Your task to perform on an android device: Go to accessibility settings Image 0: 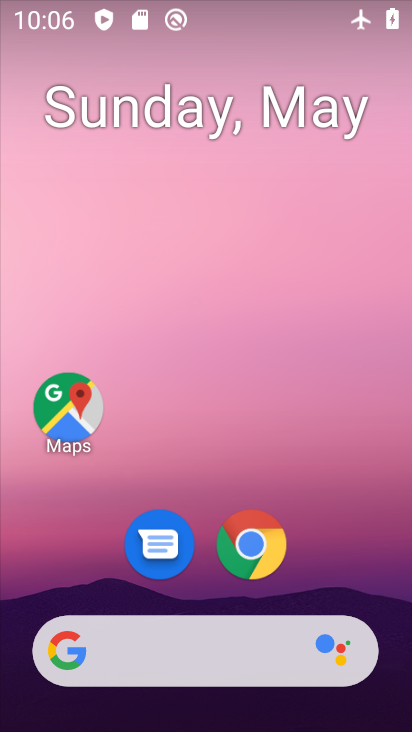
Step 0: drag from (316, 568) to (322, 293)
Your task to perform on an android device: Go to accessibility settings Image 1: 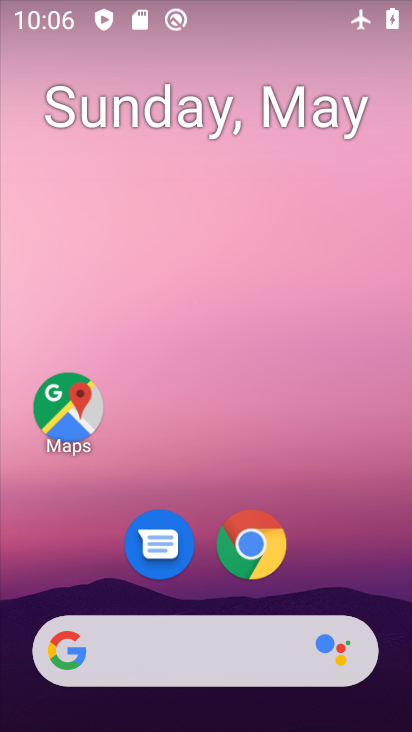
Step 1: drag from (324, 591) to (327, 207)
Your task to perform on an android device: Go to accessibility settings Image 2: 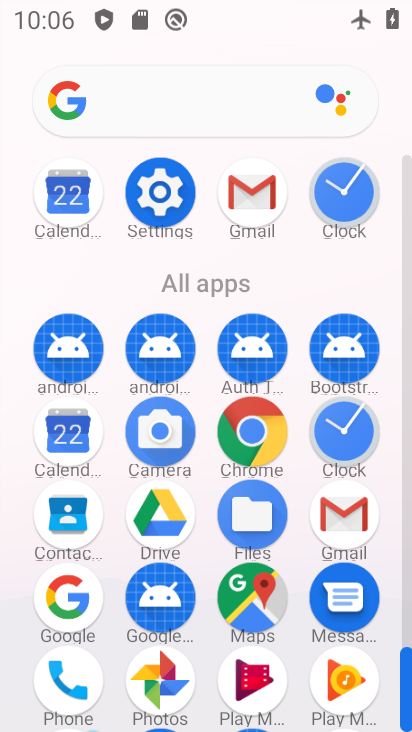
Step 2: click (163, 190)
Your task to perform on an android device: Go to accessibility settings Image 3: 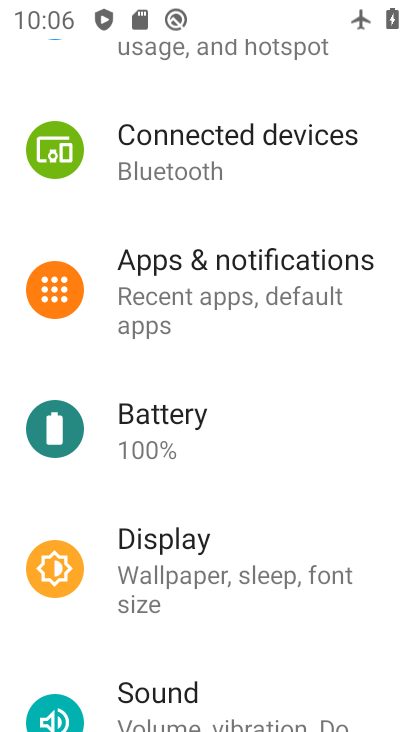
Step 3: drag from (246, 636) to (263, 148)
Your task to perform on an android device: Go to accessibility settings Image 4: 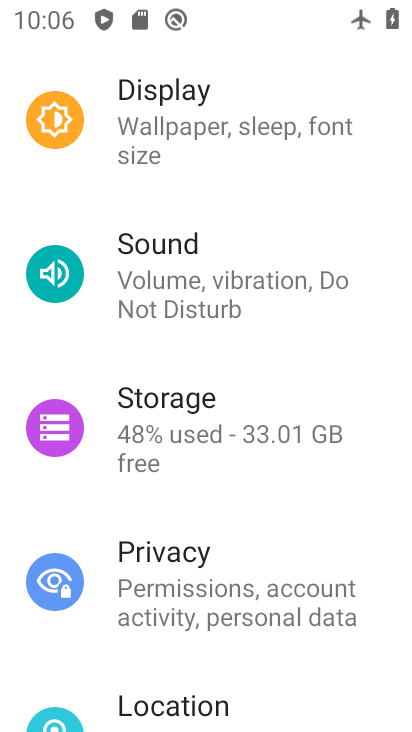
Step 4: drag from (226, 589) to (232, 141)
Your task to perform on an android device: Go to accessibility settings Image 5: 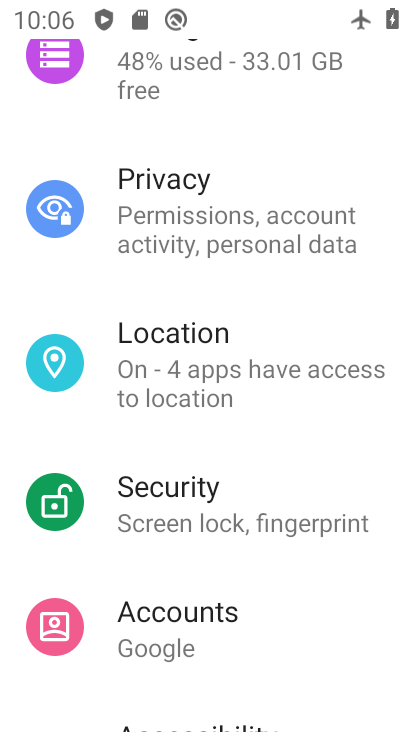
Step 5: drag from (231, 523) to (288, 181)
Your task to perform on an android device: Go to accessibility settings Image 6: 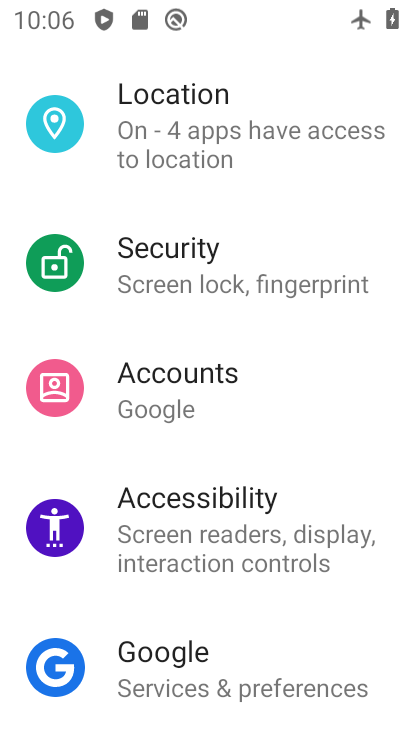
Step 6: click (228, 499)
Your task to perform on an android device: Go to accessibility settings Image 7: 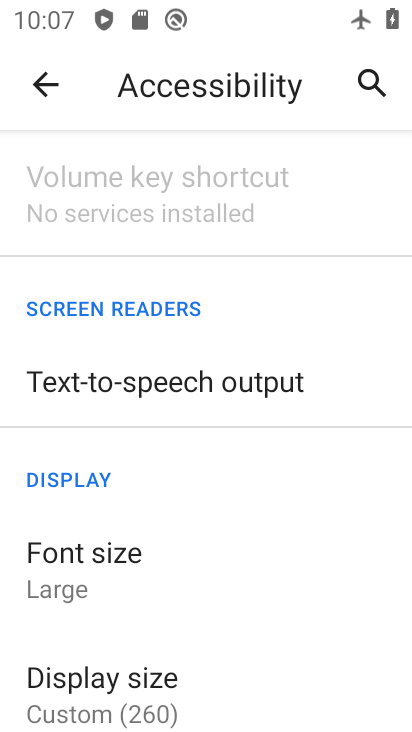
Step 7: task complete